Your task to perform on an android device: Open CNN.com Image 0: 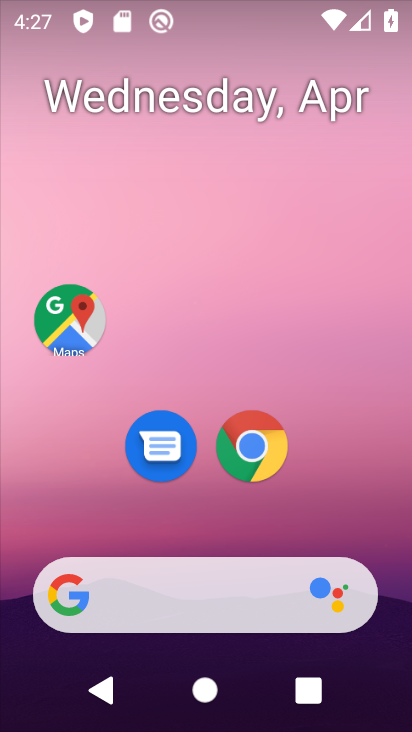
Step 0: click (265, 435)
Your task to perform on an android device: Open CNN.com Image 1: 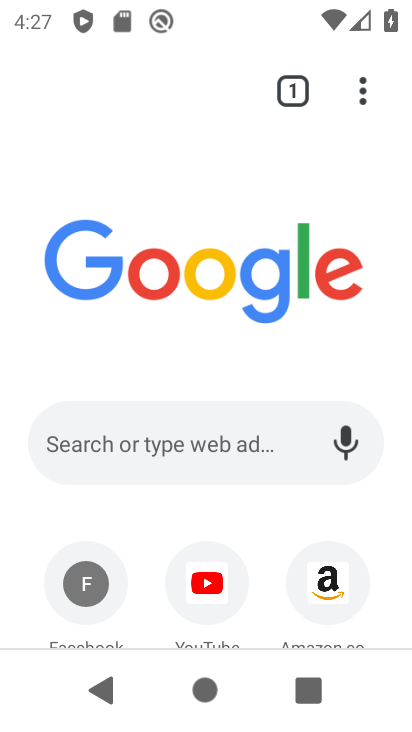
Step 1: click (145, 448)
Your task to perform on an android device: Open CNN.com Image 2: 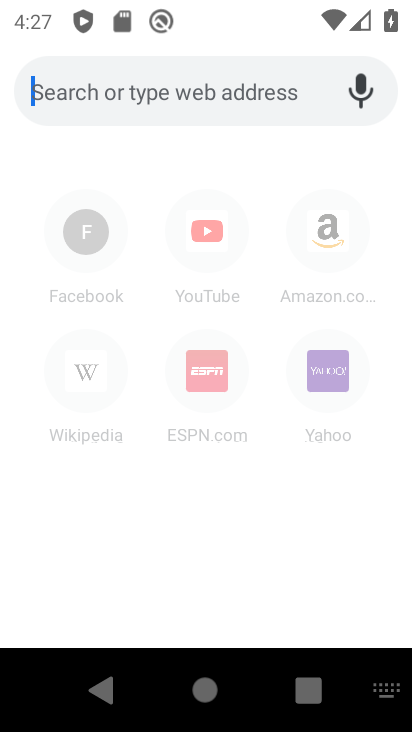
Step 2: type "Cnn.com"
Your task to perform on an android device: Open CNN.com Image 3: 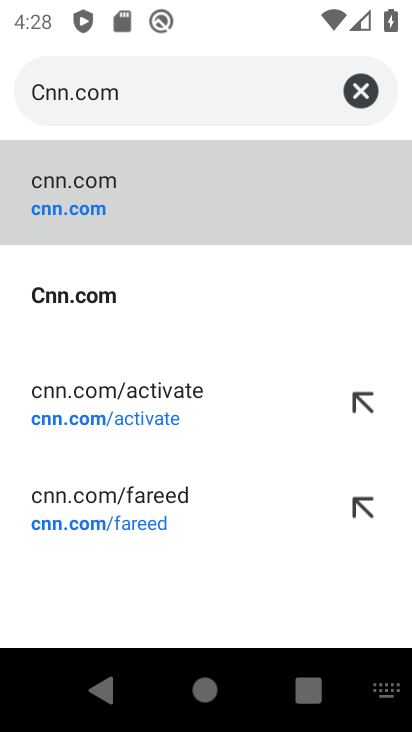
Step 3: click (190, 304)
Your task to perform on an android device: Open CNN.com Image 4: 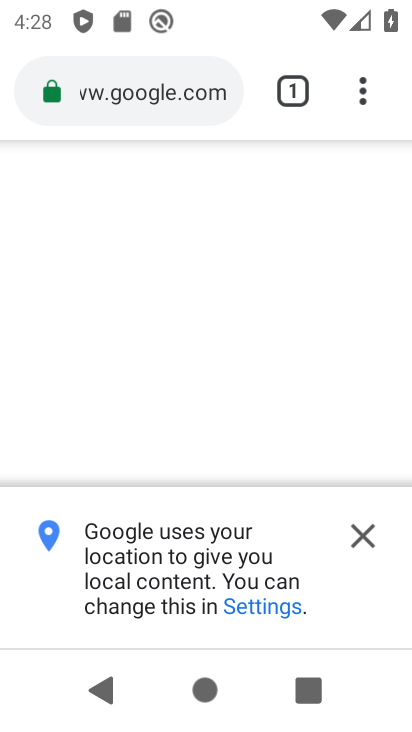
Step 4: click (374, 526)
Your task to perform on an android device: Open CNN.com Image 5: 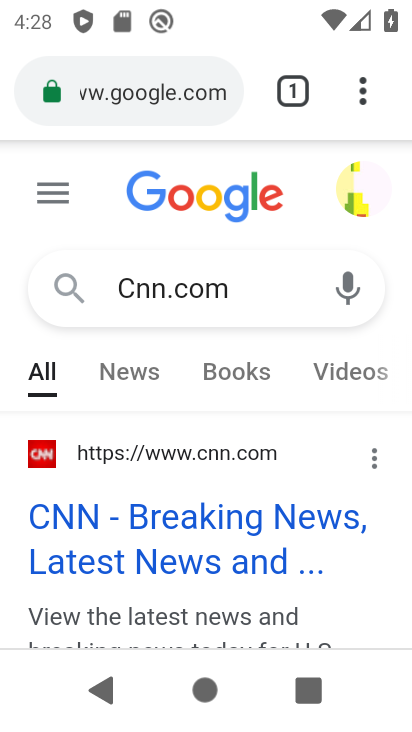
Step 5: click (251, 528)
Your task to perform on an android device: Open CNN.com Image 6: 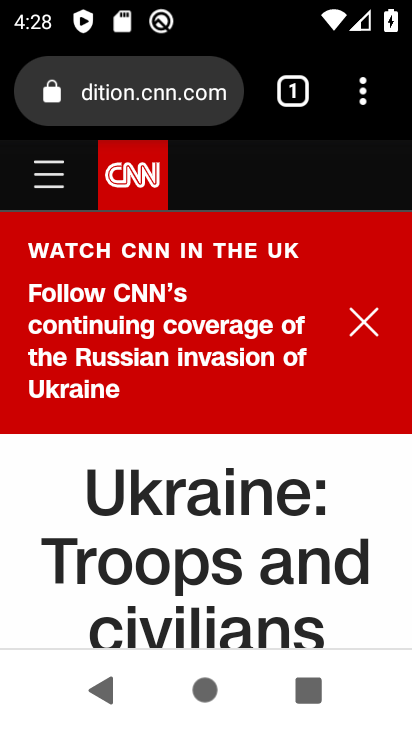
Step 6: task complete